Your task to perform on an android device: turn on sleep mode Image 0: 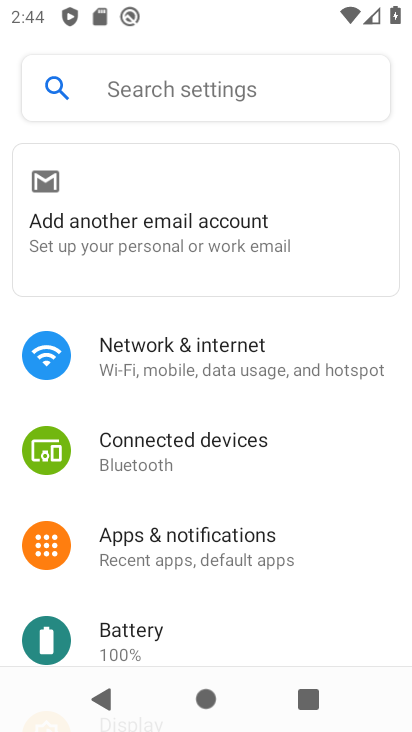
Step 0: click (156, 100)
Your task to perform on an android device: turn on sleep mode Image 1: 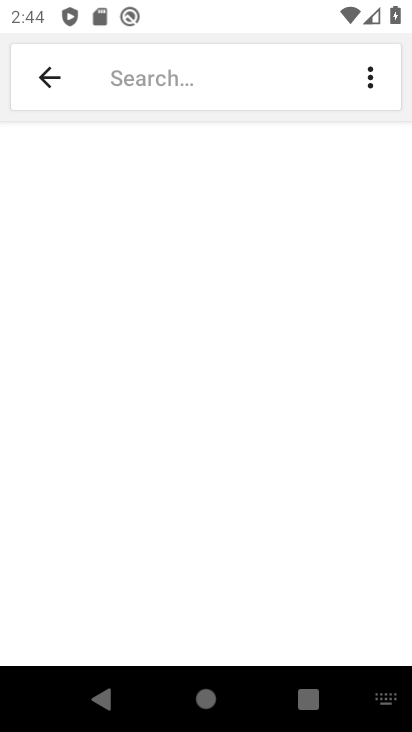
Step 1: type "sleep mode"
Your task to perform on an android device: turn on sleep mode Image 2: 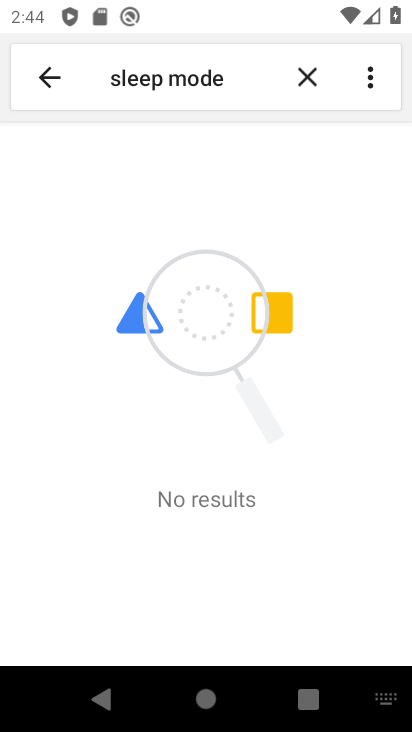
Step 2: task complete